Your task to perform on an android device: turn off airplane mode Image 0: 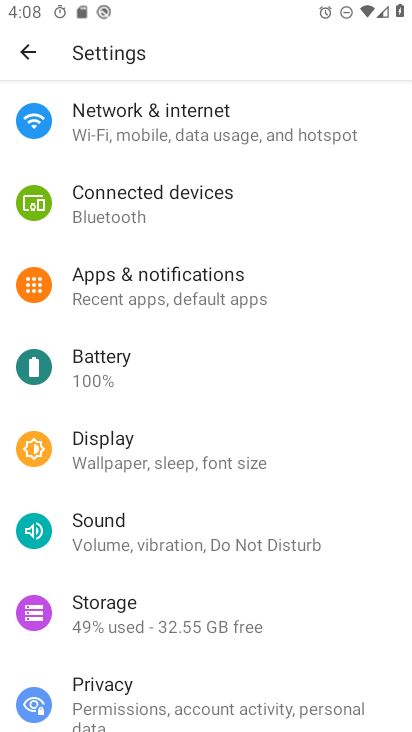
Step 0: press home button
Your task to perform on an android device: turn off airplane mode Image 1: 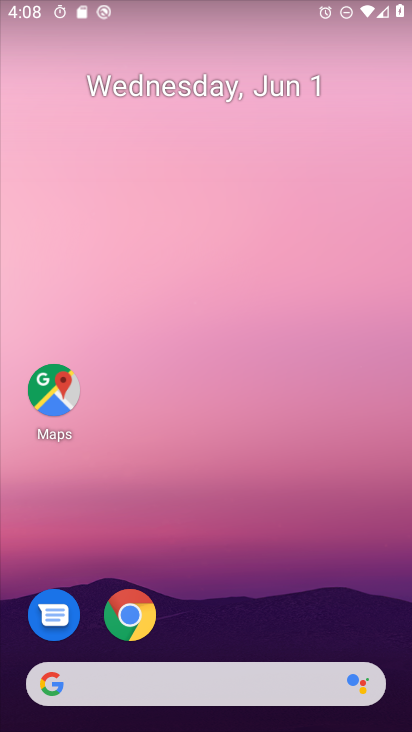
Step 1: drag from (303, 661) to (264, 126)
Your task to perform on an android device: turn off airplane mode Image 2: 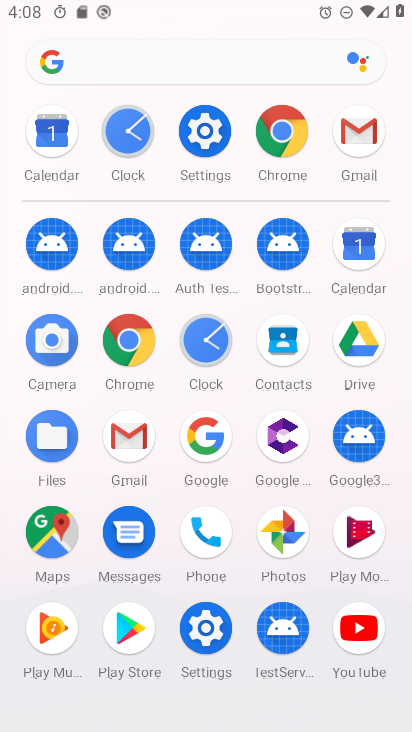
Step 2: click (203, 145)
Your task to perform on an android device: turn off airplane mode Image 3: 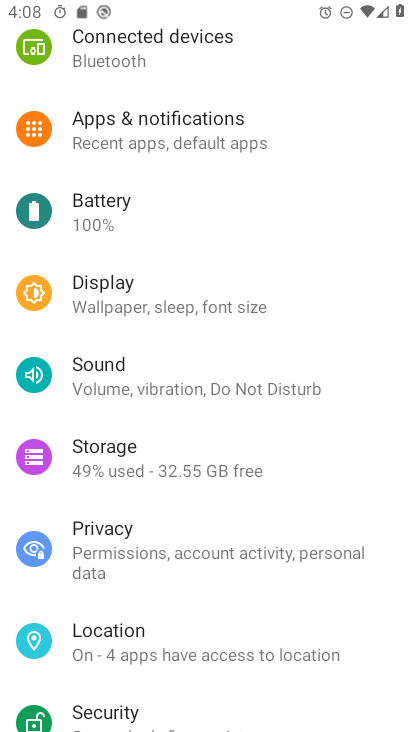
Step 3: drag from (195, 163) to (220, 719)
Your task to perform on an android device: turn off airplane mode Image 4: 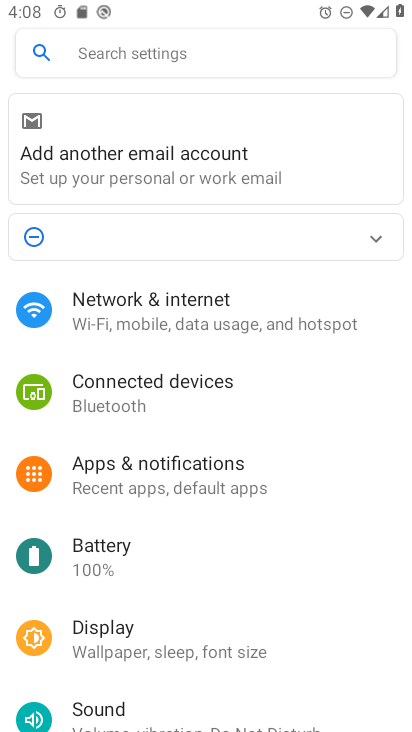
Step 4: click (181, 336)
Your task to perform on an android device: turn off airplane mode Image 5: 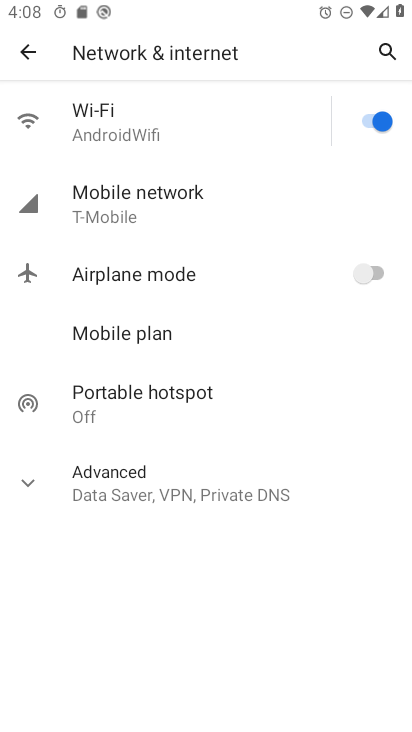
Step 5: task complete